Your task to perform on an android device: change timer sound Image 0: 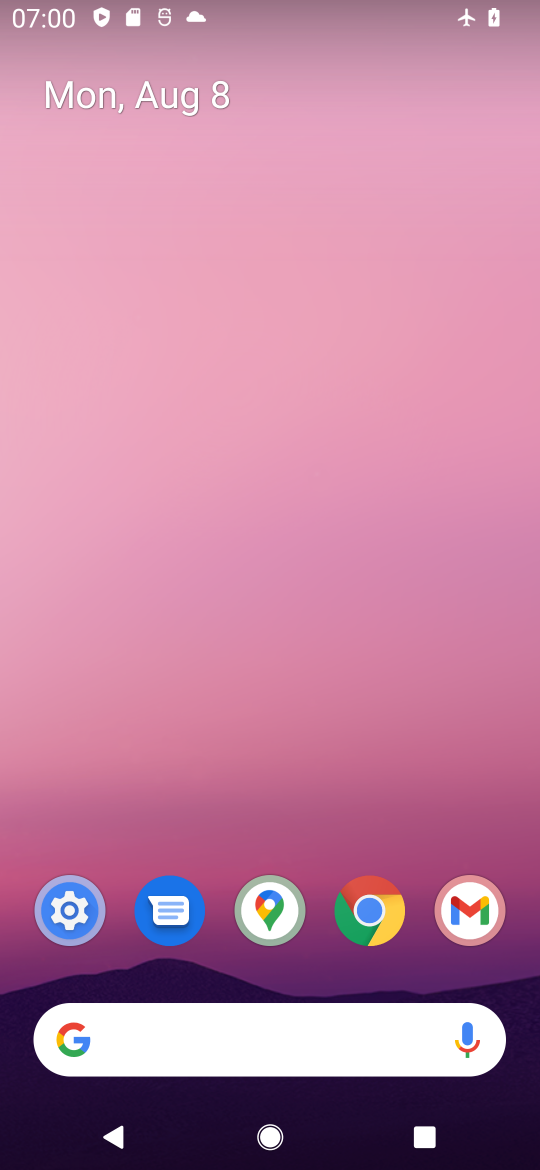
Step 0: drag from (217, 1064) to (349, 569)
Your task to perform on an android device: change timer sound Image 1: 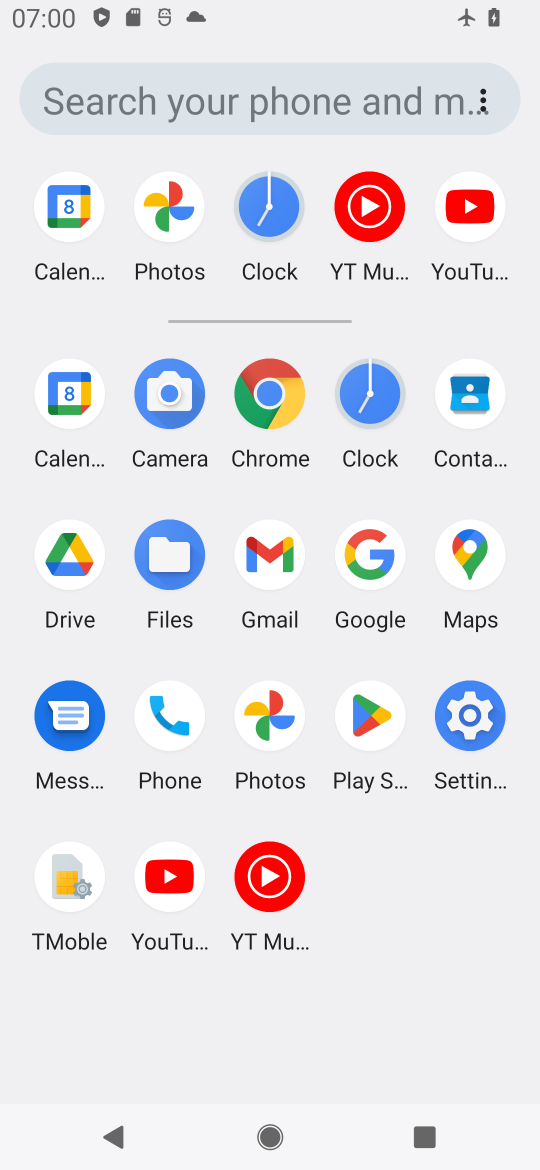
Step 1: click (373, 395)
Your task to perform on an android device: change timer sound Image 2: 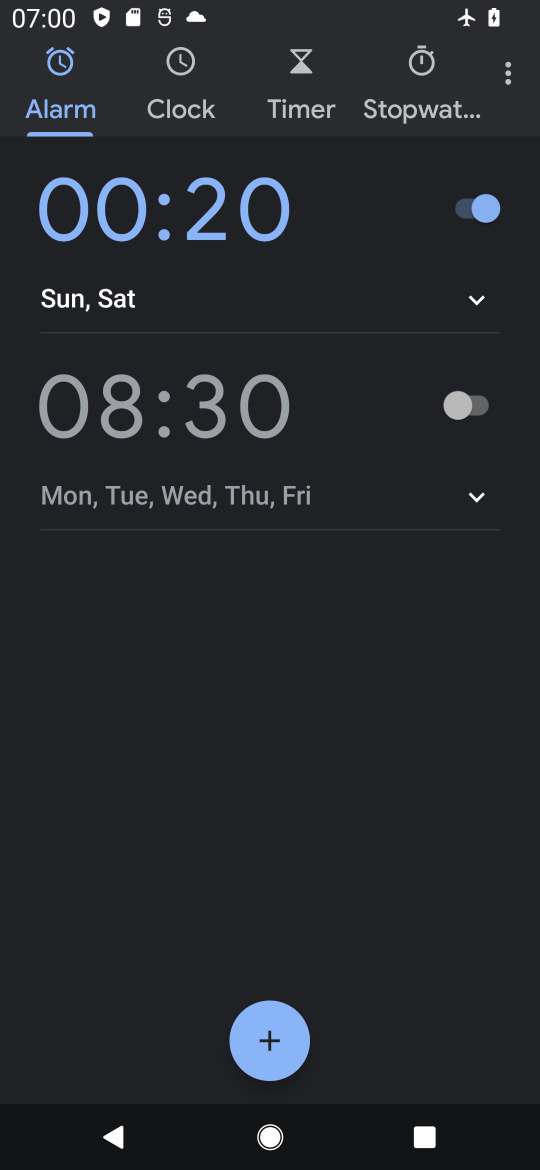
Step 2: click (507, 80)
Your task to perform on an android device: change timer sound Image 3: 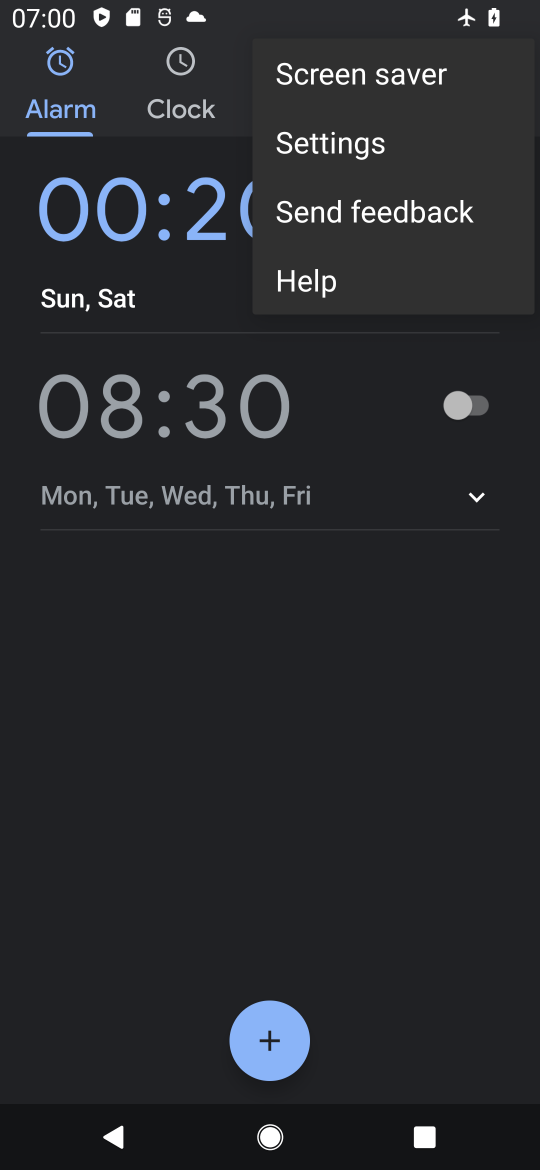
Step 3: click (348, 146)
Your task to perform on an android device: change timer sound Image 4: 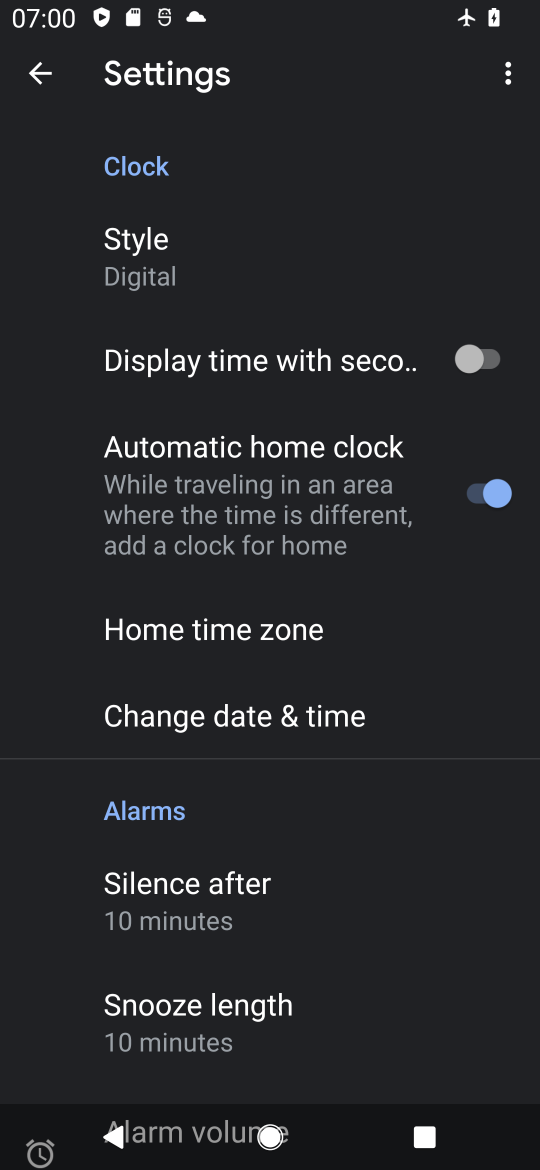
Step 4: drag from (309, 887) to (348, 614)
Your task to perform on an android device: change timer sound Image 5: 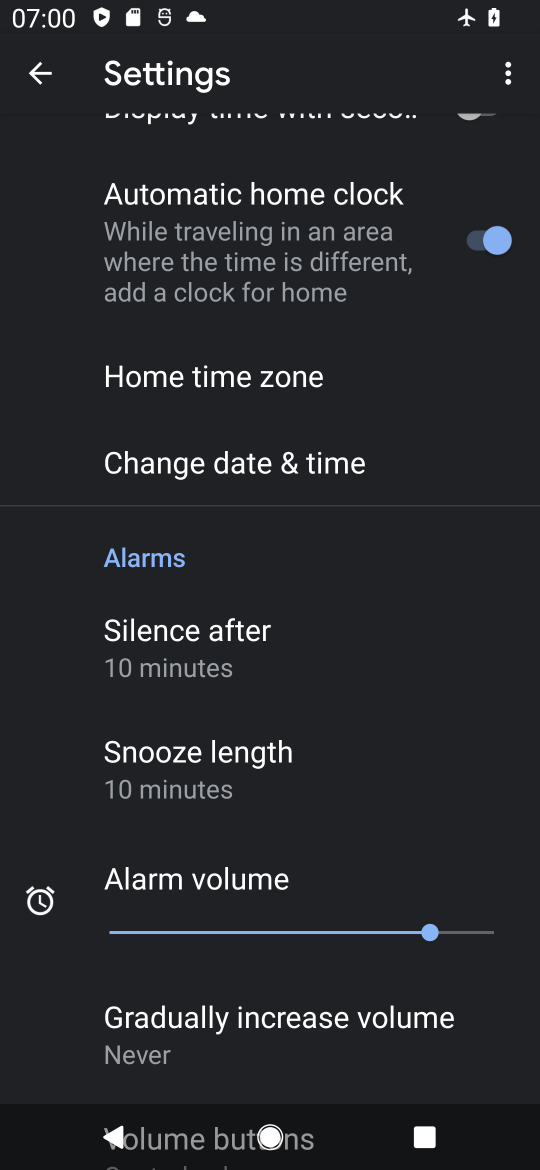
Step 5: drag from (334, 780) to (410, 638)
Your task to perform on an android device: change timer sound Image 6: 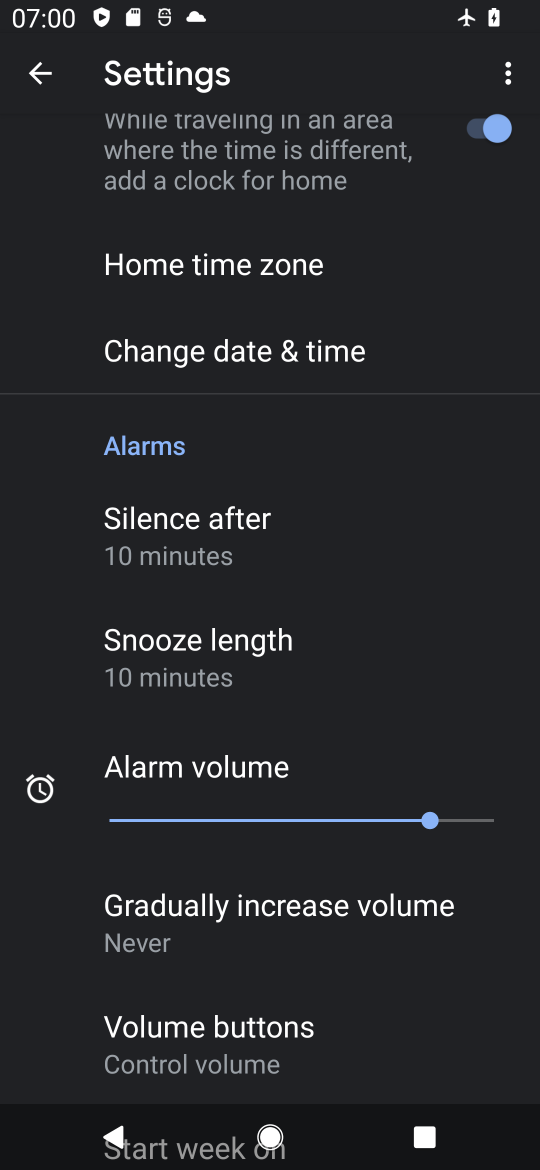
Step 6: drag from (316, 862) to (416, 689)
Your task to perform on an android device: change timer sound Image 7: 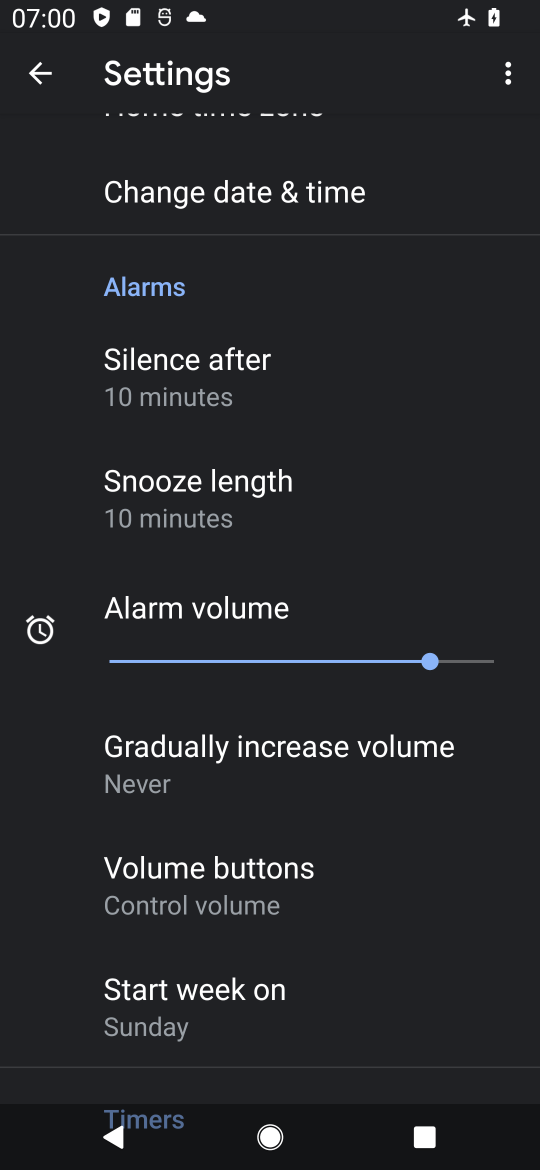
Step 7: drag from (330, 913) to (449, 745)
Your task to perform on an android device: change timer sound Image 8: 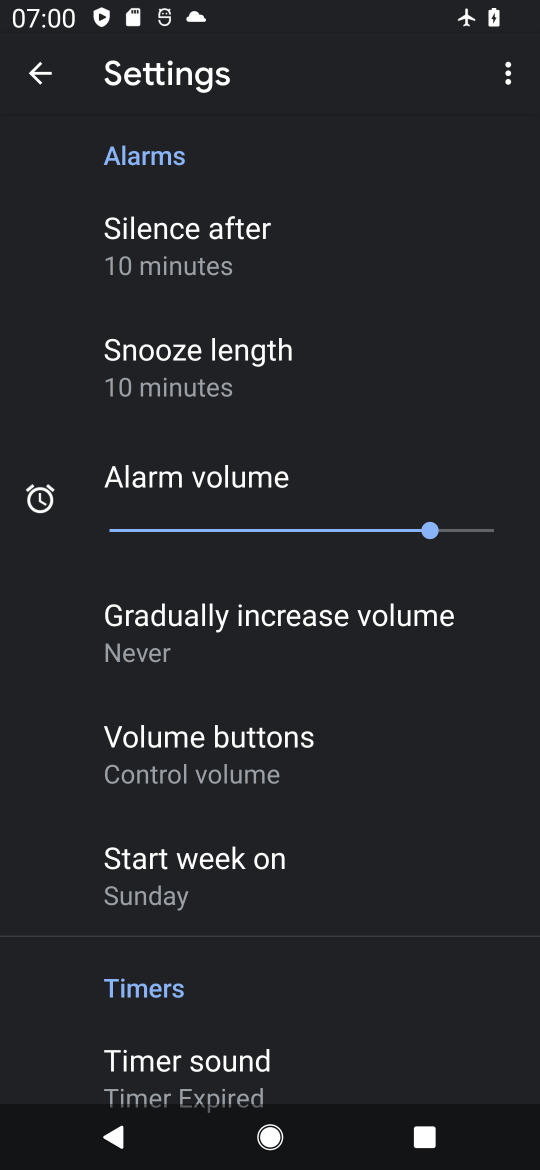
Step 8: drag from (300, 930) to (458, 729)
Your task to perform on an android device: change timer sound Image 9: 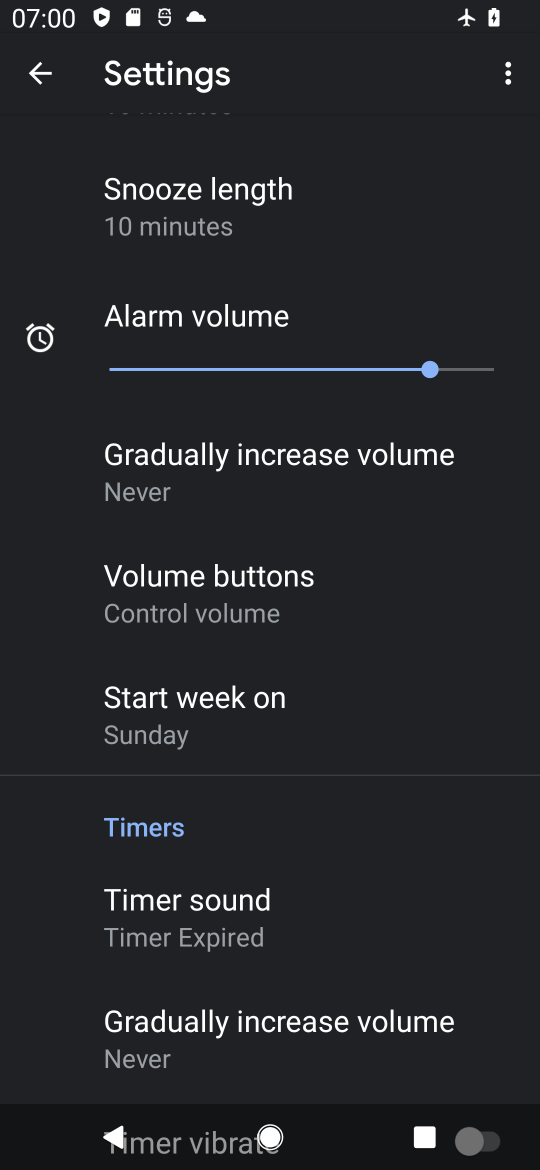
Step 9: click (255, 950)
Your task to perform on an android device: change timer sound Image 10: 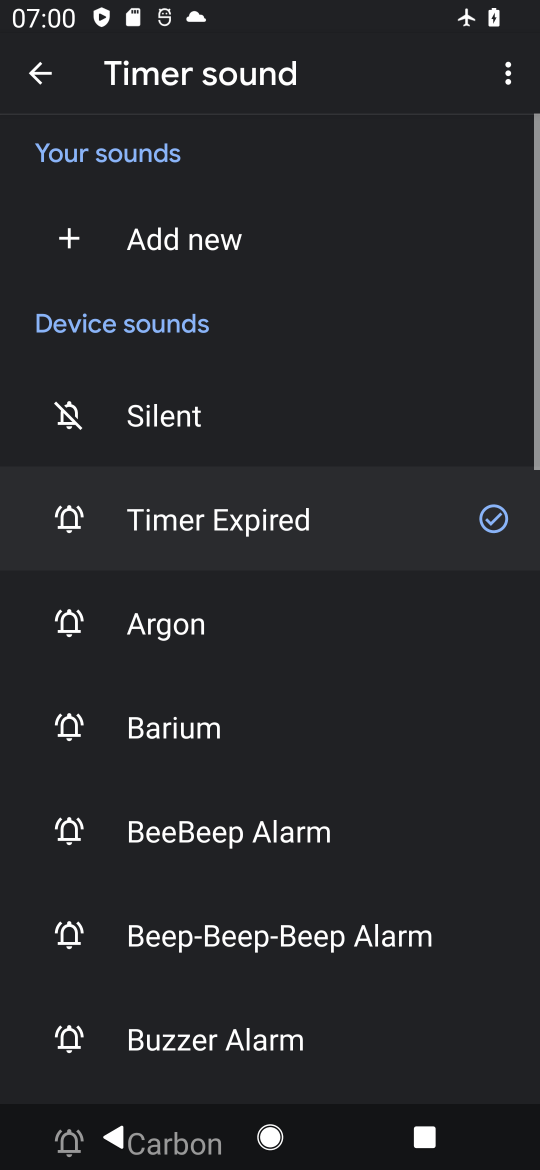
Step 10: drag from (255, 950) to (367, 462)
Your task to perform on an android device: change timer sound Image 11: 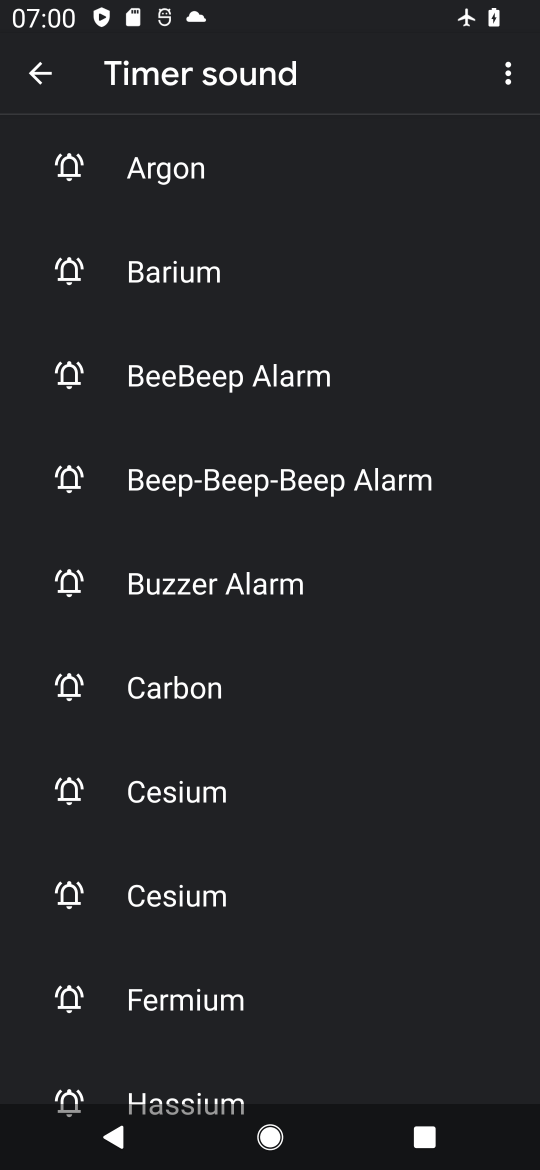
Step 11: click (252, 611)
Your task to perform on an android device: change timer sound Image 12: 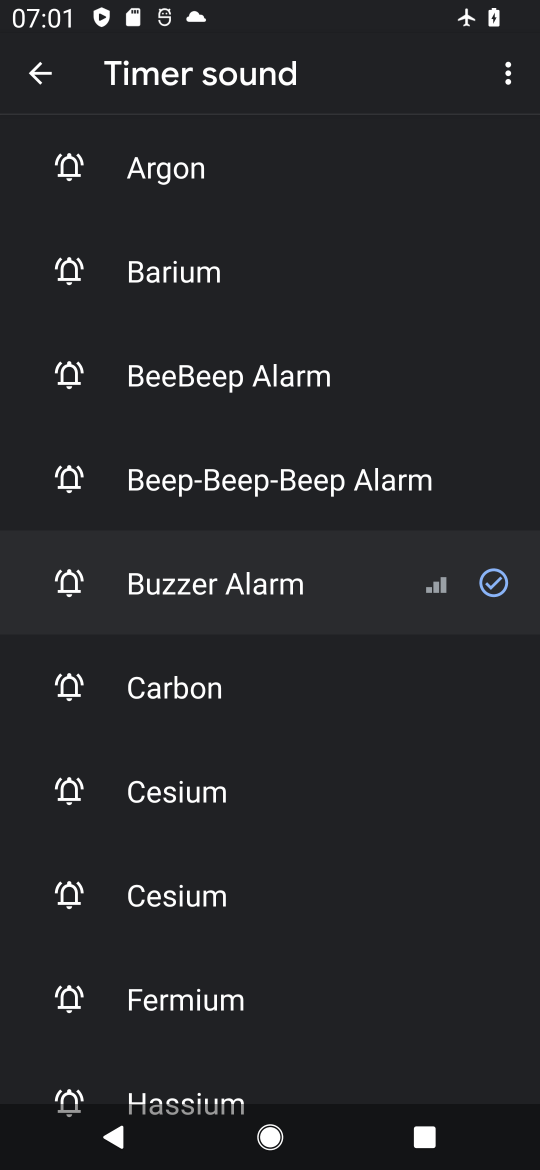
Step 12: task complete